Your task to perform on an android device: What's the latest video from GameSpot News? Image 0: 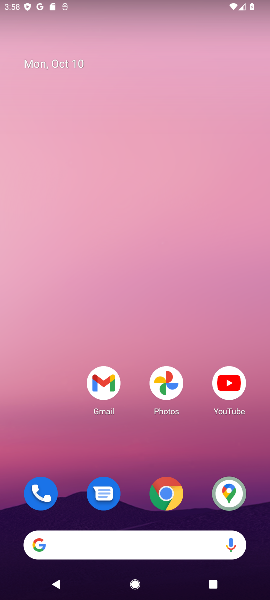
Step 0: click (91, 540)
Your task to perform on an android device: What's the latest video from GameSpot News? Image 1: 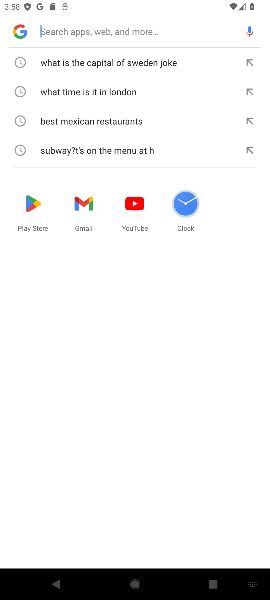
Step 1: type "What's the latest video from GameSpot News"
Your task to perform on an android device: What's the latest video from GameSpot News? Image 2: 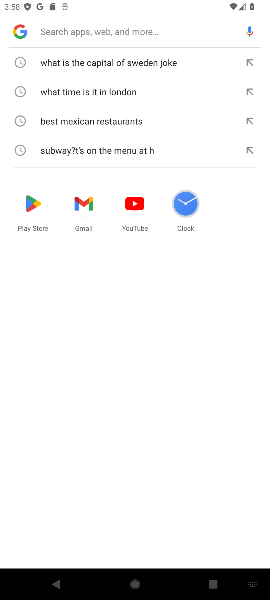
Step 2: click (130, 59)
Your task to perform on an android device: What's the latest video from GameSpot News? Image 3: 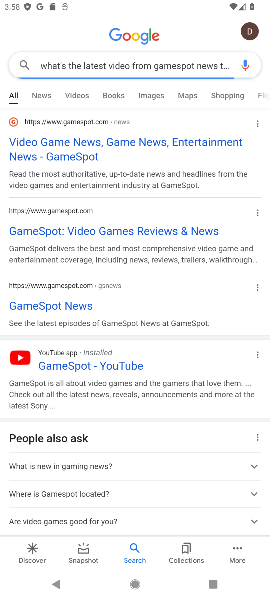
Step 3: task complete